Your task to perform on an android device: search for starred emails in the gmail app Image 0: 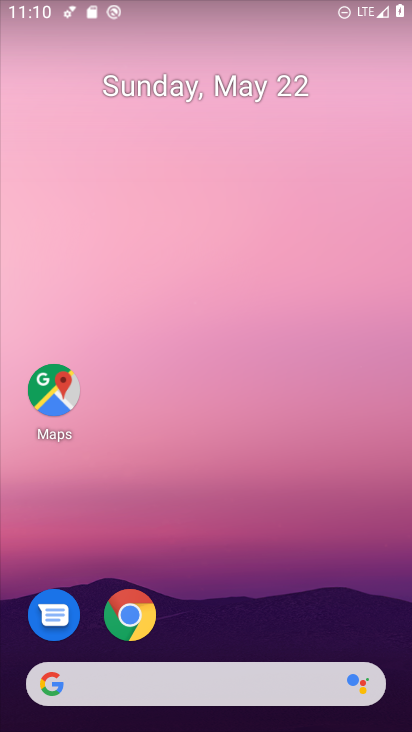
Step 0: drag from (200, 614) to (177, 104)
Your task to perform on an android device: search for starred emails in the gmail app Image 1: 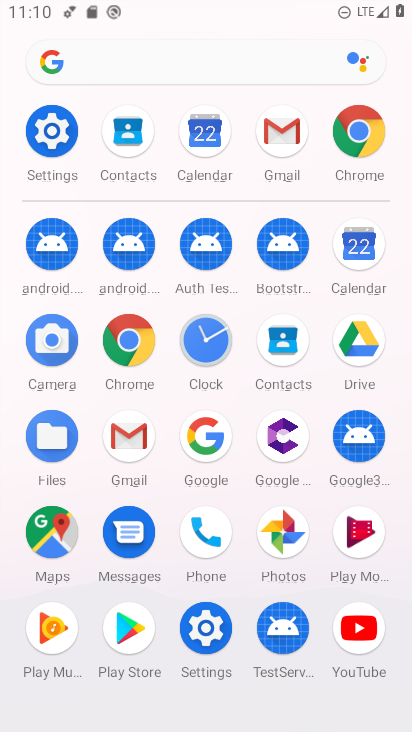
Step 1: click (278, 120)
Your task to perform on an android device: search for starred emails in the gmail app Image 2: 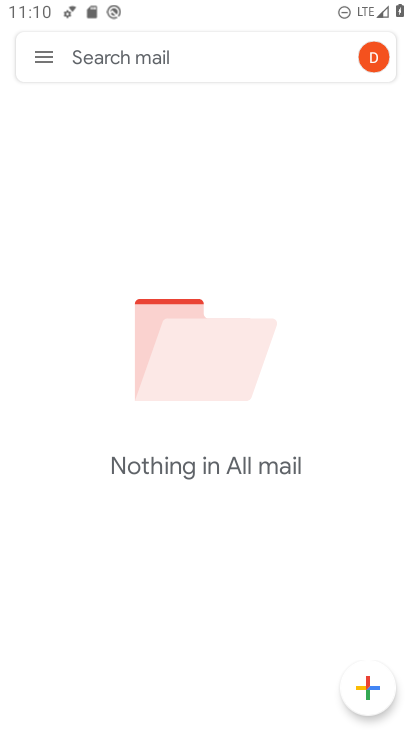
Step 2: click (36, 40)
Your task to perform on an android device: search for starred emails in the gmail app Image 3: 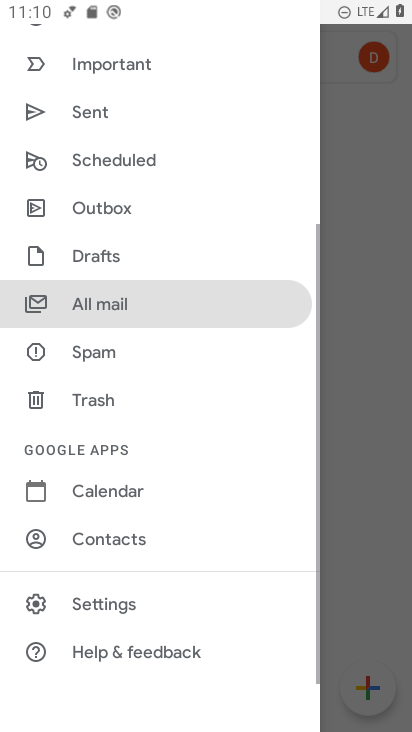
Step 3: drag from (138, 181) to (160, 483)
Your task to perform on an android device: search for starred emails in the gmail app Image 4: 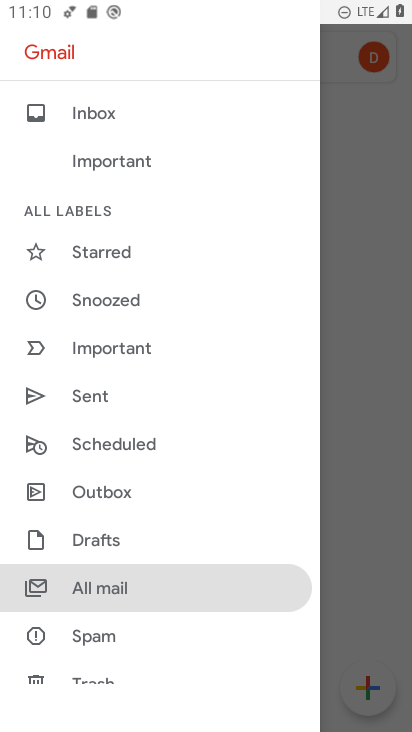
Step 4: click (98, 258)
Your task to perform on an android device: search for starred emails in the gmail app Image 5: 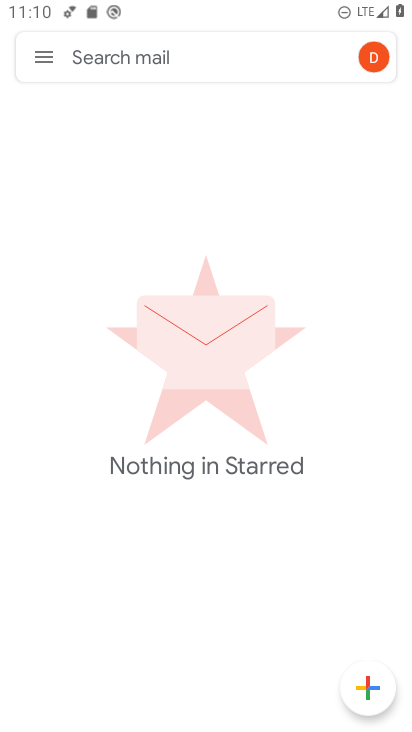
Step 5: task complete